Your task to perform on an android device: all mails in gmail Image 0: 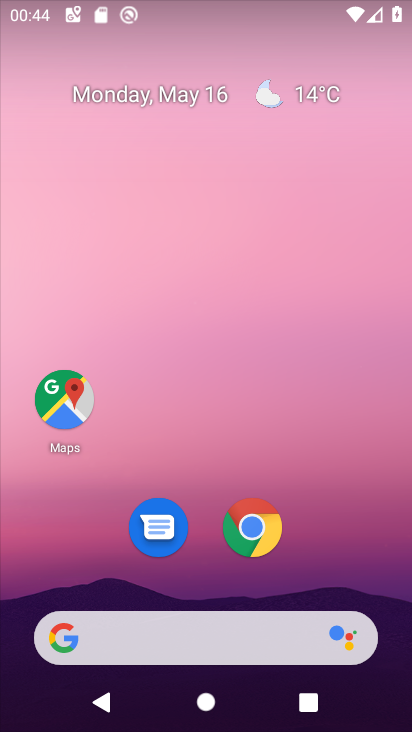
Step 0: drag from (207, 591) to (236, 44)
Your task to perform on an android device: all mails in gmail Image 1: 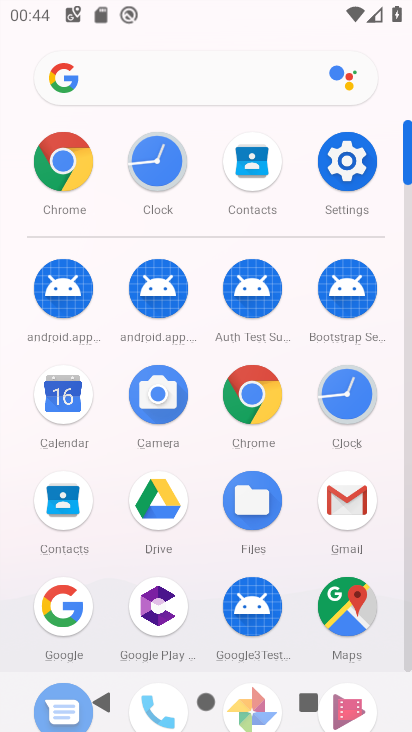
Step 1: click (350, 499)
Your task to perform on an android device: all mails in gmail Image 2: 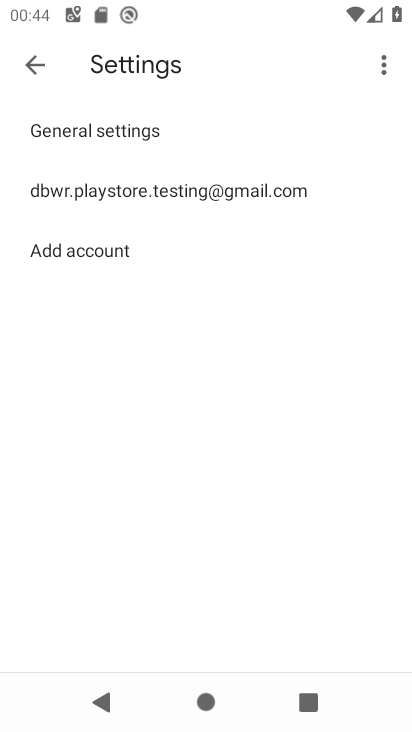
Step 2: click (35, 65)
Your task to perform on an android device: all mails in gmail Image 3: 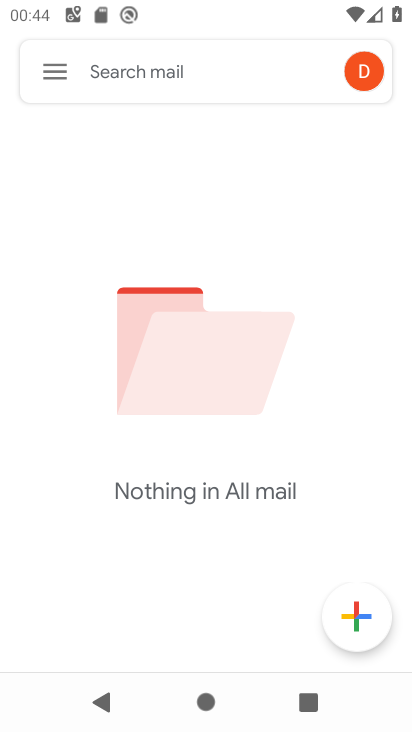
Step 3: click (34, 66)
Your task to perform on an android device: all mails in gmail Image 4: 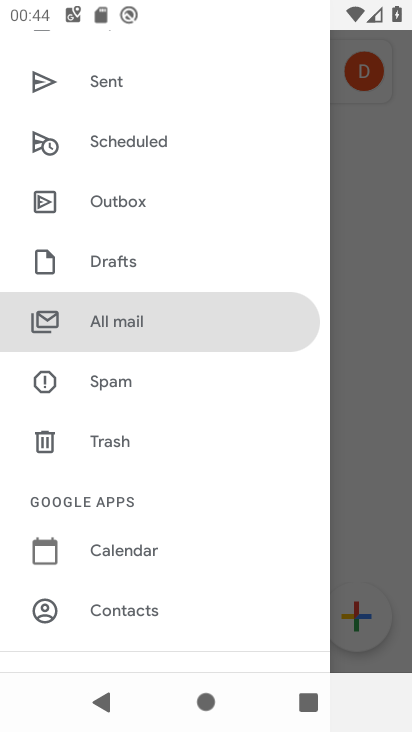
Step 4: click (217, 326)
Your task to perform on an android device: all mails in gmail Image 5: 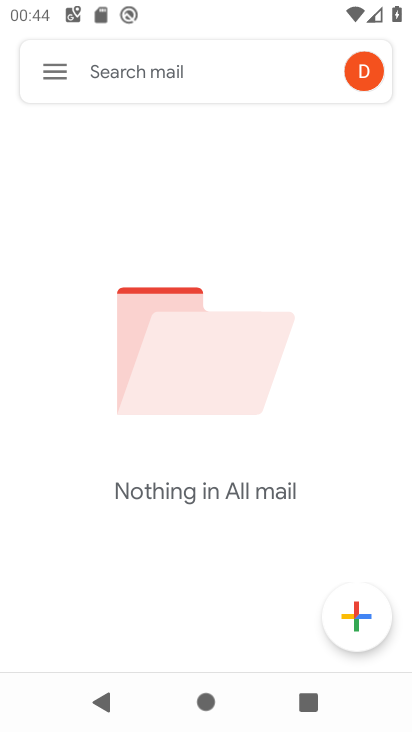
Step 5: task complete